Your task to perform on an android device: Add "razer blade" to the cart on amazon.com, then select checkout. Image 0: 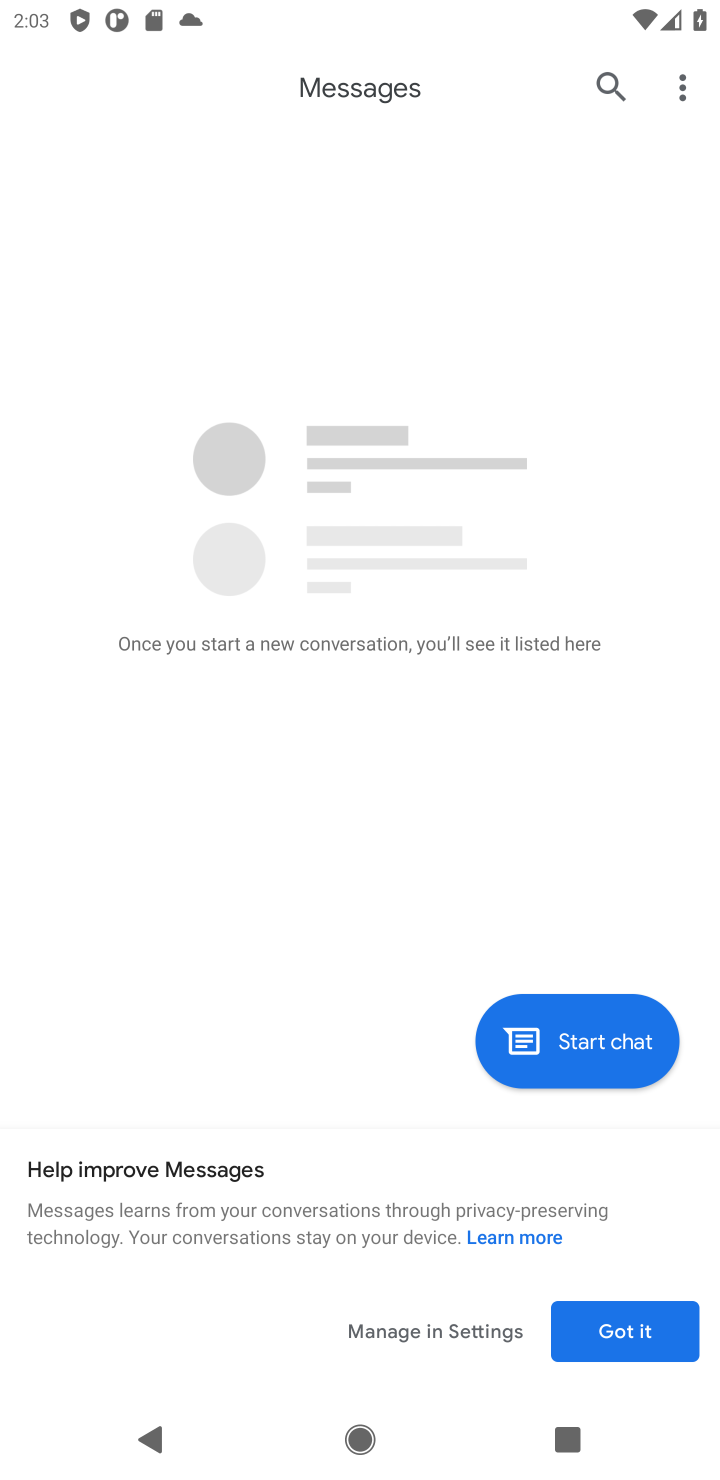
Step 0: task complete